Your task to perform on an android device: Go to Yahoo.com Image 0: 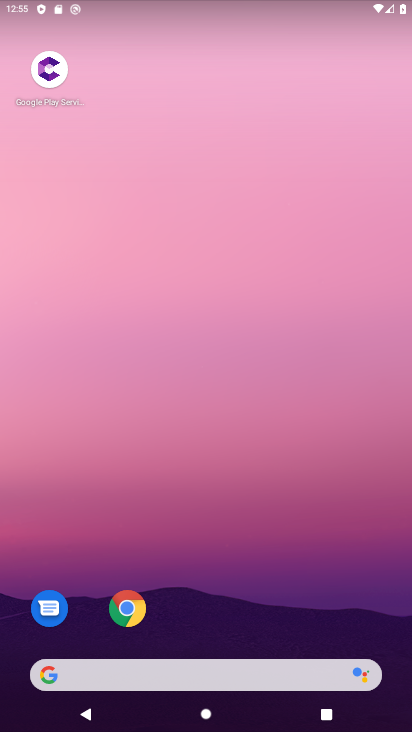
Step 0: click (123, 607)
Your task to perform on an android device: Go to Yahoo.com Image 1: 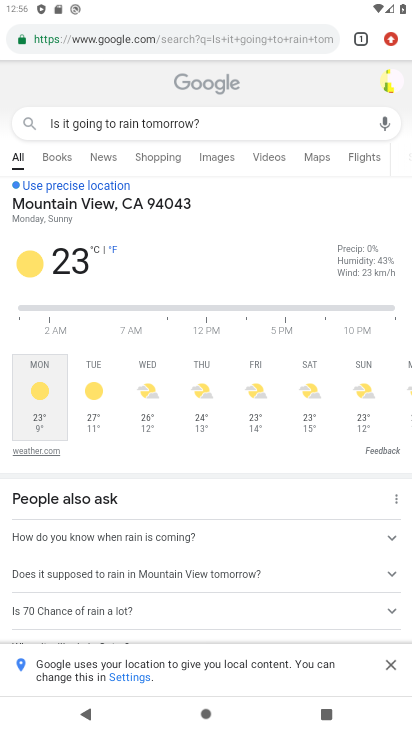
Step 1: click (204, 30)
Your task to perform on an android device: Go to Yahoo.com Image 2: 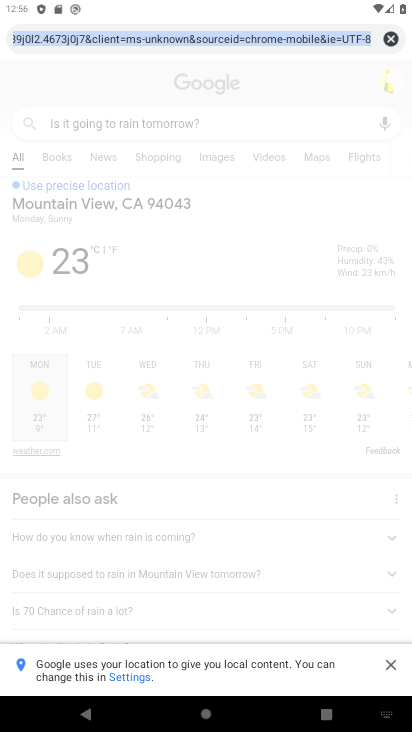
Step 2: type "Yahoo.com"
Your task to perform on an android device: Go to Yahoo.com Image 3: 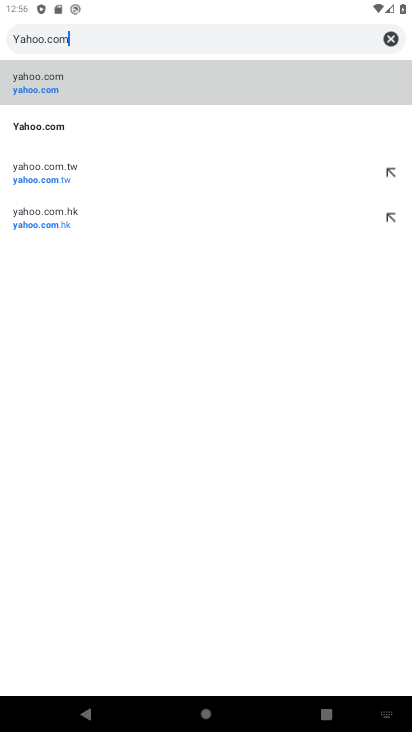
Step 3: click (83, 81)
Your task to perform on an android device: Go to Yahoo.com Image 4: 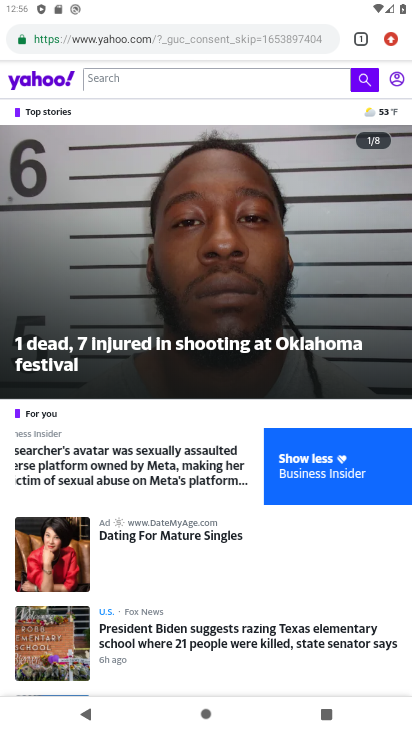
Step 4: task complete